Your task to perform on an android device: turn on bluetooth scan Image 0: 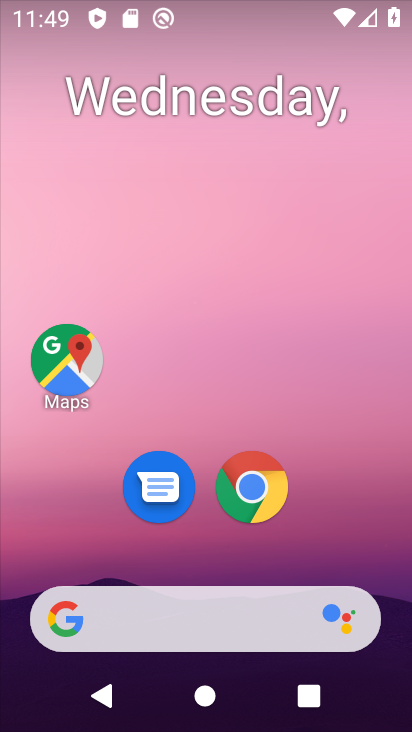
Step 0: drag from (195, 497) to (263, 52)
Your task to perform on an android device: turn on bluetooth scan Image 1: 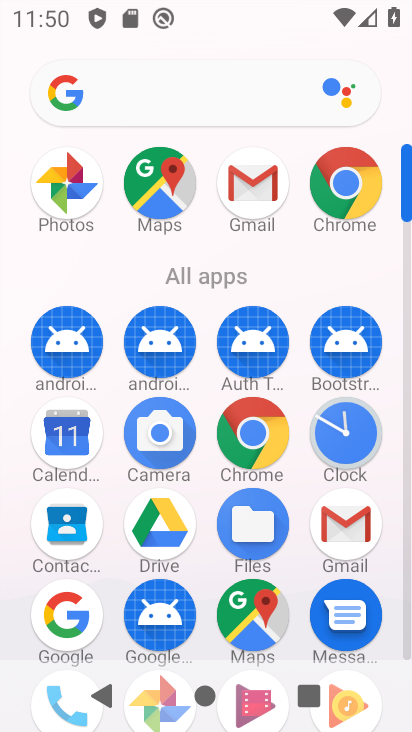
Step 1: drag from (205, 497) to (210, 302)
Your task to perform on an android device: turn on bluetooth scan Image 2: 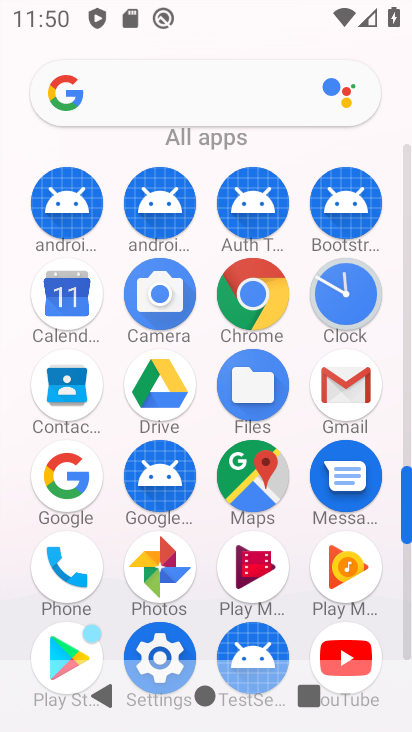
Step 2: click (156, 643)
Your task to perform on an android device: turn on bluetooth scan Image 3: 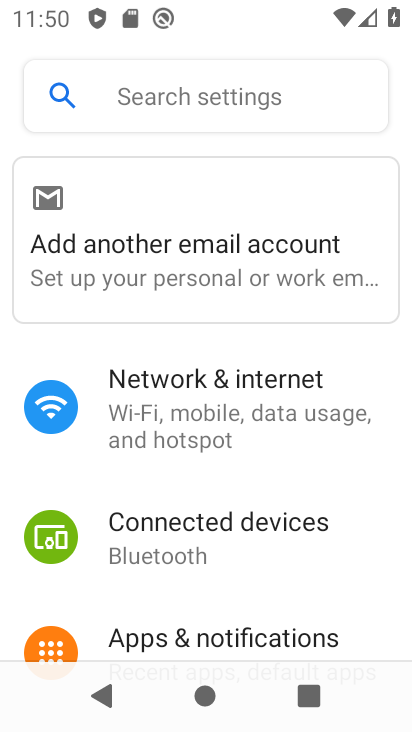
Step 3: click (214, 530)
Your task to perform on an android device: turn on bluetooth scan Image 4: 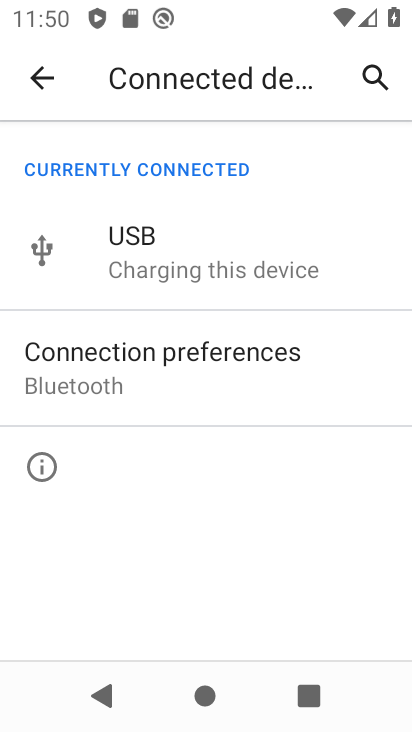
Step 4: click (177, 370)
Your task to perform on an android device: turn on bluetooth scan Image 5: 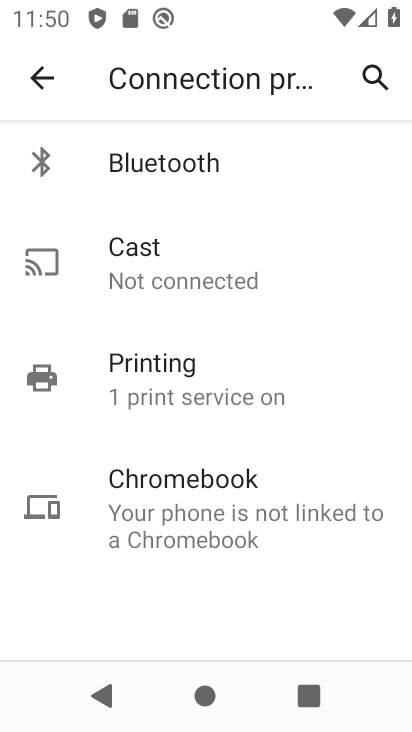
Step 5: click (220, 170)
Your task to perform on an android device: turn on bluetooth scan Image 6: 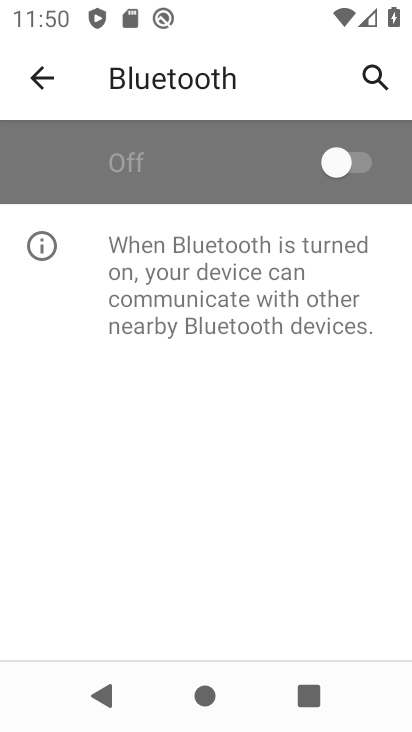
Step 6: click (356, 160)
Your task to perform on an android device: turn on bluetooth scan Image 7: 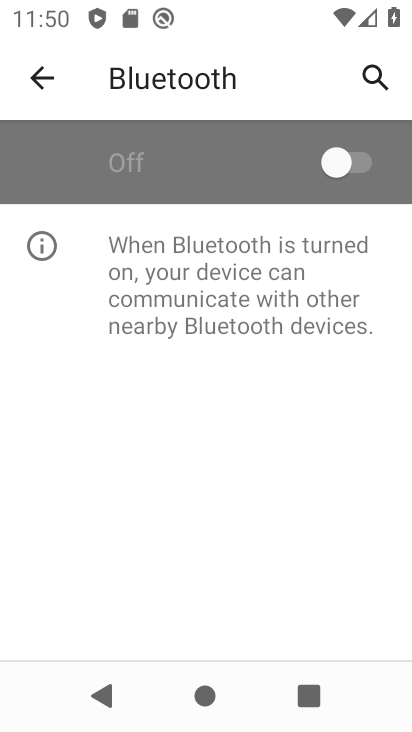
Step 7: click (349, 159)
Your task to perform on an android device: turn on bluetooth scan Image 8: 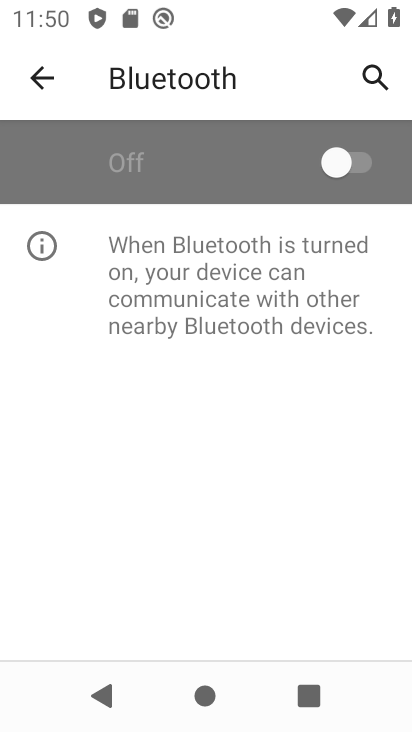
Step 8: click (349, 159)
Your task to perform on an android device: turn on bluetooth scan Image 9: 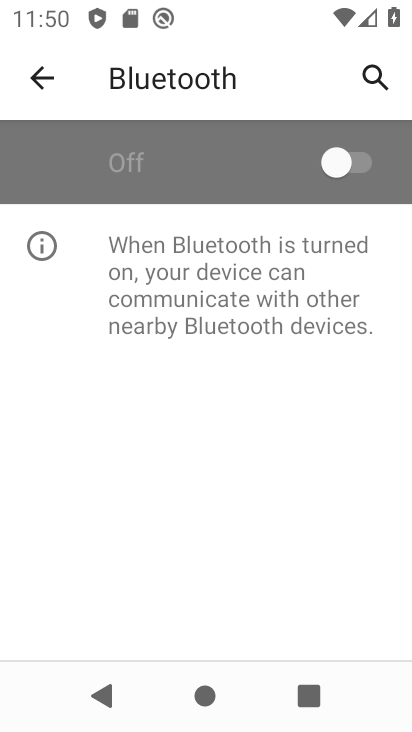
Step 9: click (349, 159)
Your task to perform on an android device: turn on bluetooth scan Image 10: 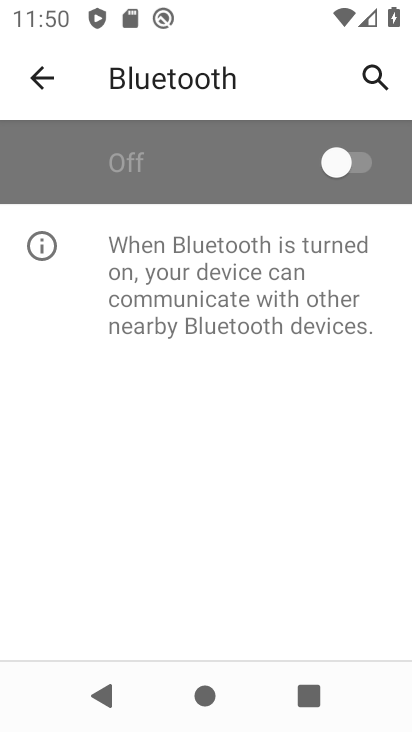
Step 10: click (349, 159)
Your task to perform on an android device: turn on bluetooth scan Image 11: 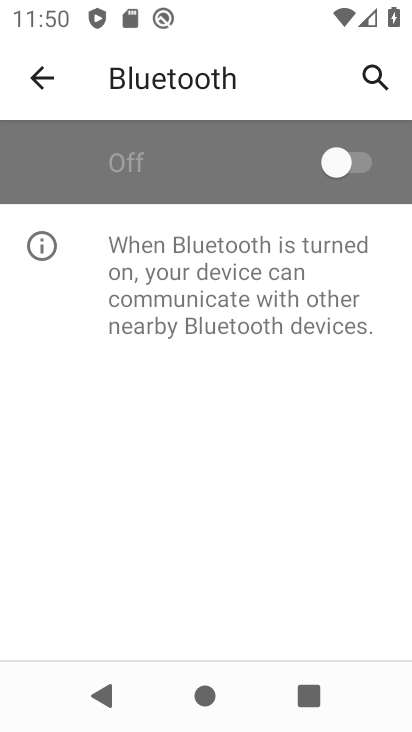
Step 11: click (349, 159)
Your task to perform on an android device: turn on bluetooth scan Image 12: 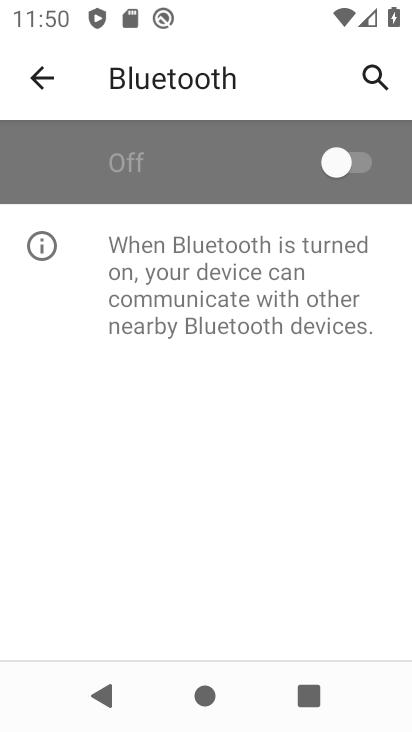
Step 12: click (349, 159)
Your task to perform on an android device: turn on bluetooth scan Image 13: 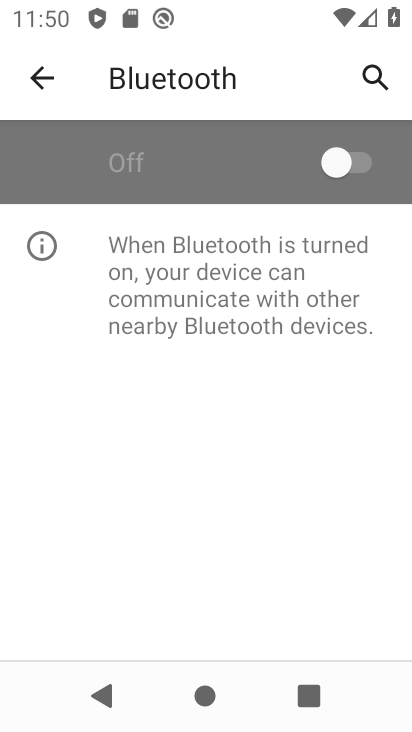
Step 13: task complete